Your task to perform on an android device: Open eBay Image 0: 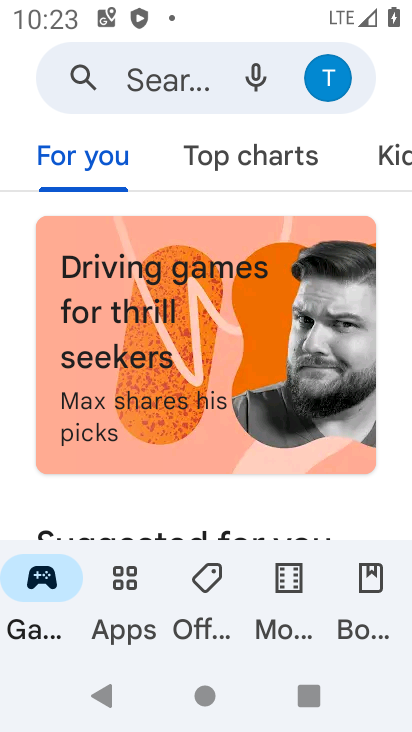
Step 0: press home button
Your task to perform on an android device: Open eBay Image 1: 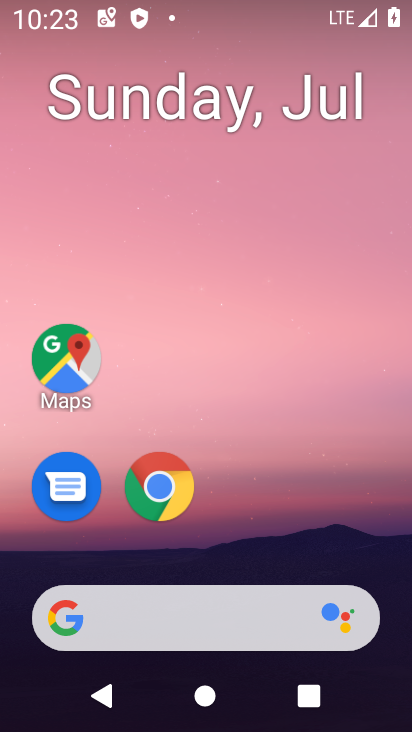
Step 1: drag from (371, 540) to (371, 96)
Your task to perform on an android device: Open eBay Image 2: 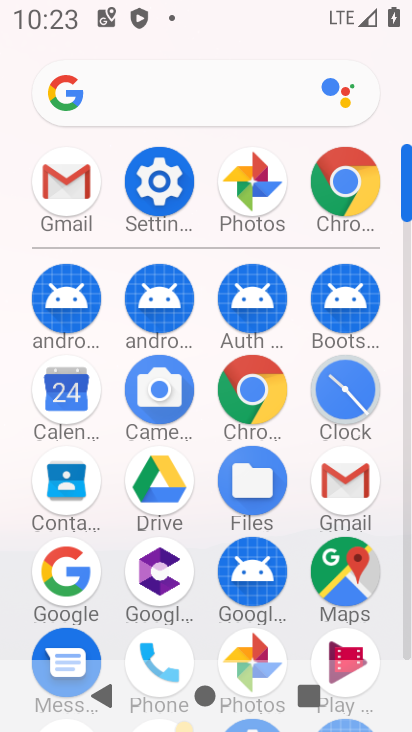
Step 2: click (260, 401)
Your task to perform on an android device: Open eBay Image 3: 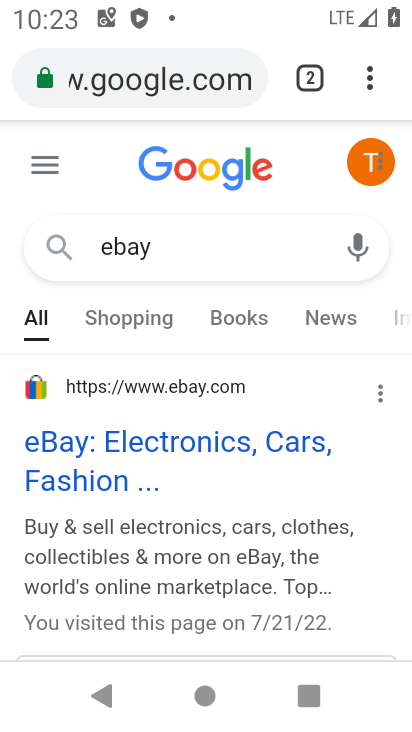
Step 3: task complete